Your task to perform on an android device: toggle notifications settings in the gmail app Image 0: 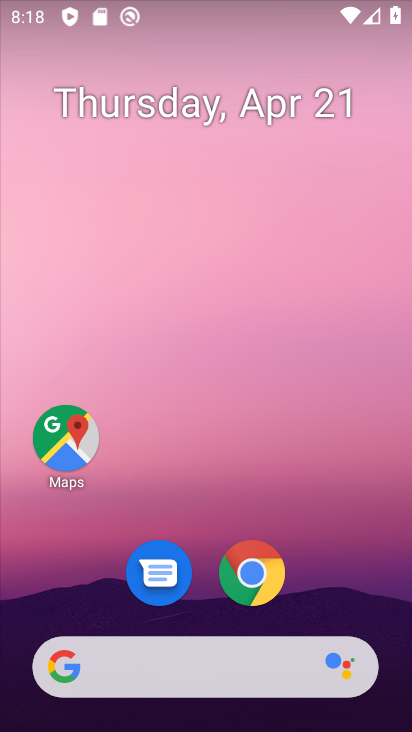
Step 0: drag from (329, 566) to (360, 77)
Your task to perform on an android device: toggle notifications settings in the gmail app Image 1: 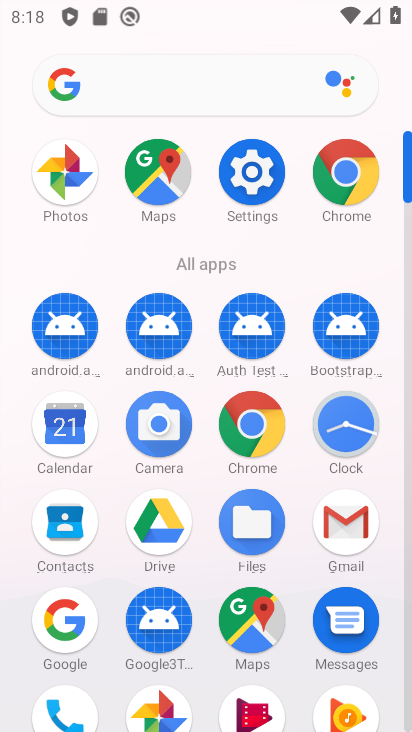
Step 1: click (339, 505)
Your task to perform on an android device: toggle notifications settings in the gmail app Image 2: 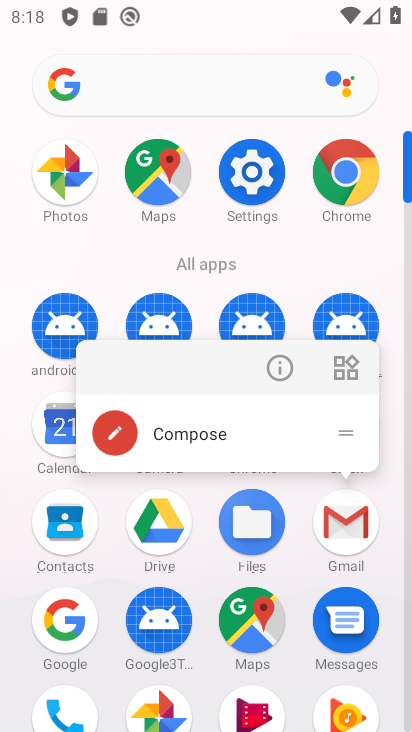
Step 2: click (280, 372)
Your task to perform on an android device: toggle notifications settings in the gmail app Image 3: 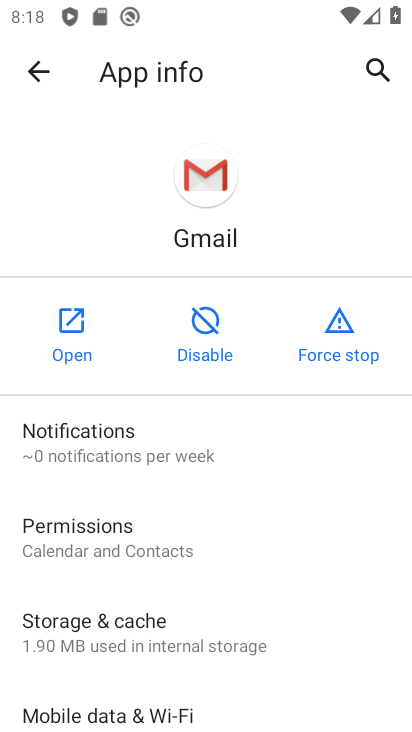
Step 3: click (143, 437)
Your task to perform on an android device: toggle notifications settings in the gmail app Image 4: 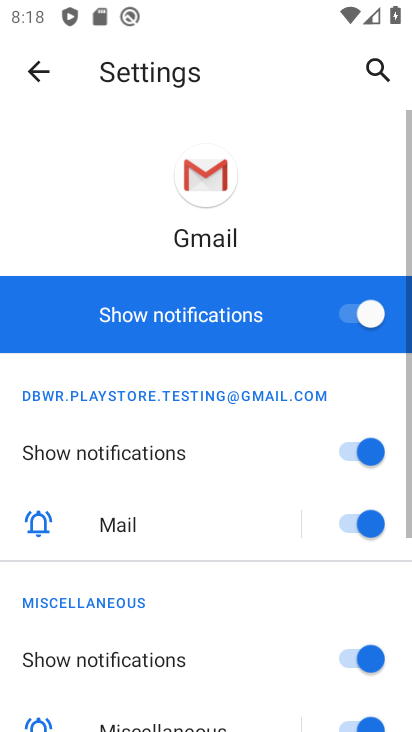
Step 4: click (358, 326)
Your task to perform on an android device: toggle notifications settings in the gmail app Image 5: 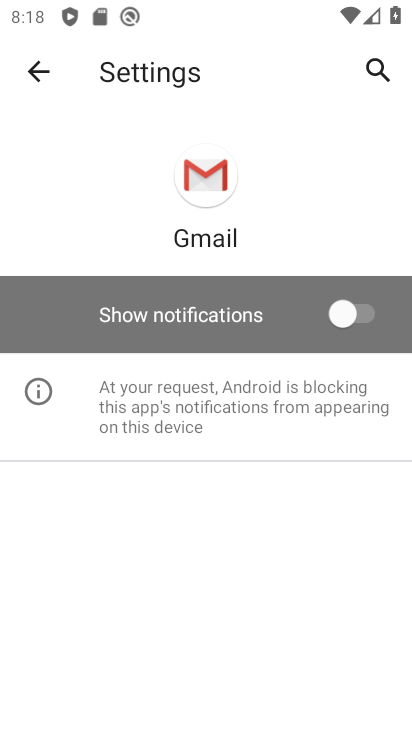
Step 5: task complete